Your task to perform on an android device: What's the latest news in tech? Image 0: 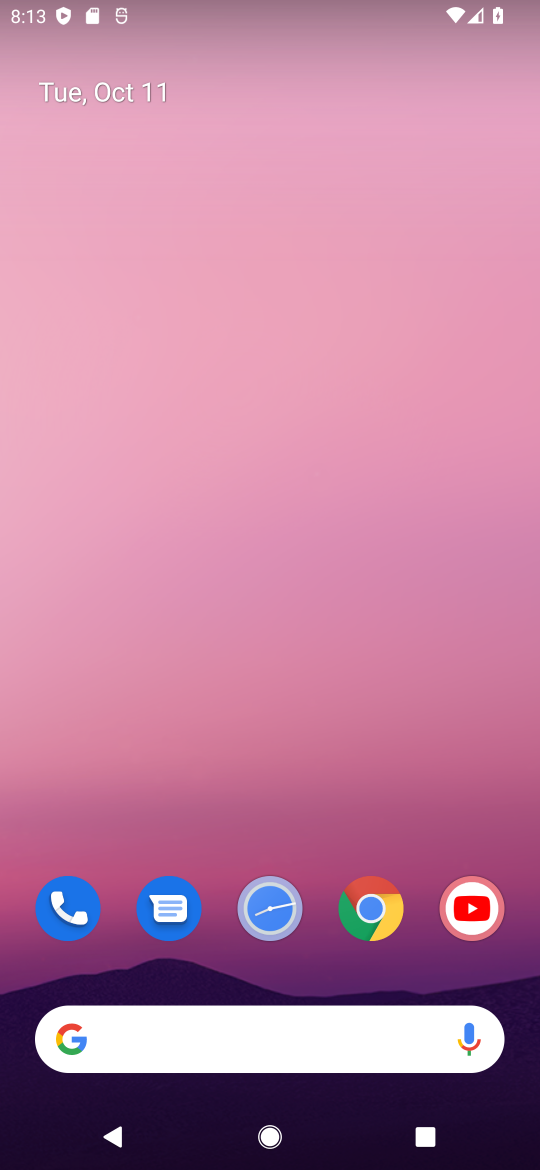
Step 0: click (268, 691)
Your task to perform on an android device: What's the latest news in tech? Image 1: 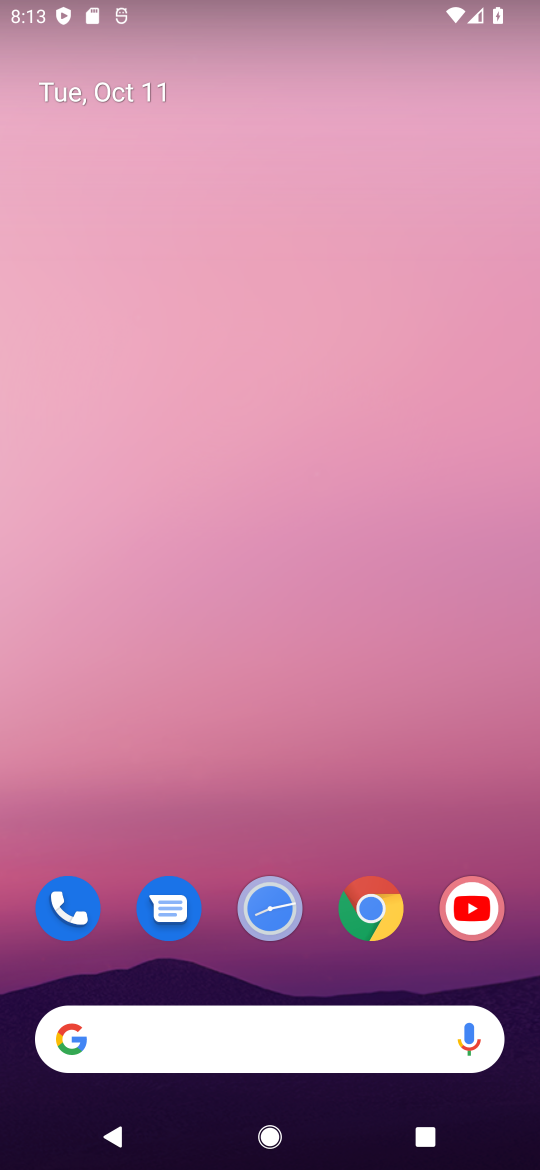
Step 1: click (197, 1030)
Your task to perform on an android device: What's the latest news in tech? Image 2: 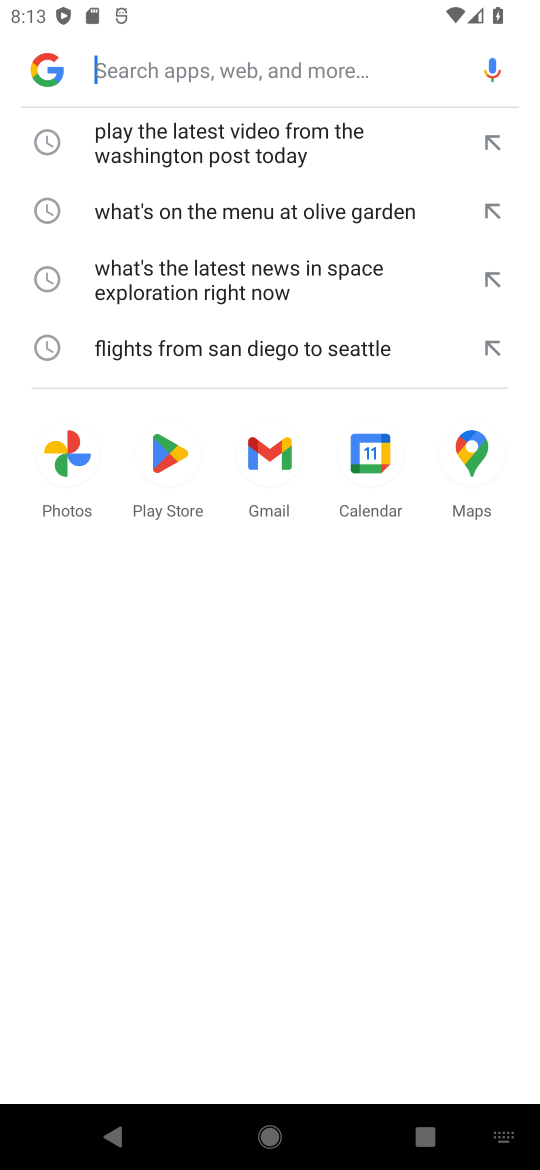
Step 2: type "What's the latest news in tech?"
Your task to perform on an android device: What's the latest news in tech? Image 3: 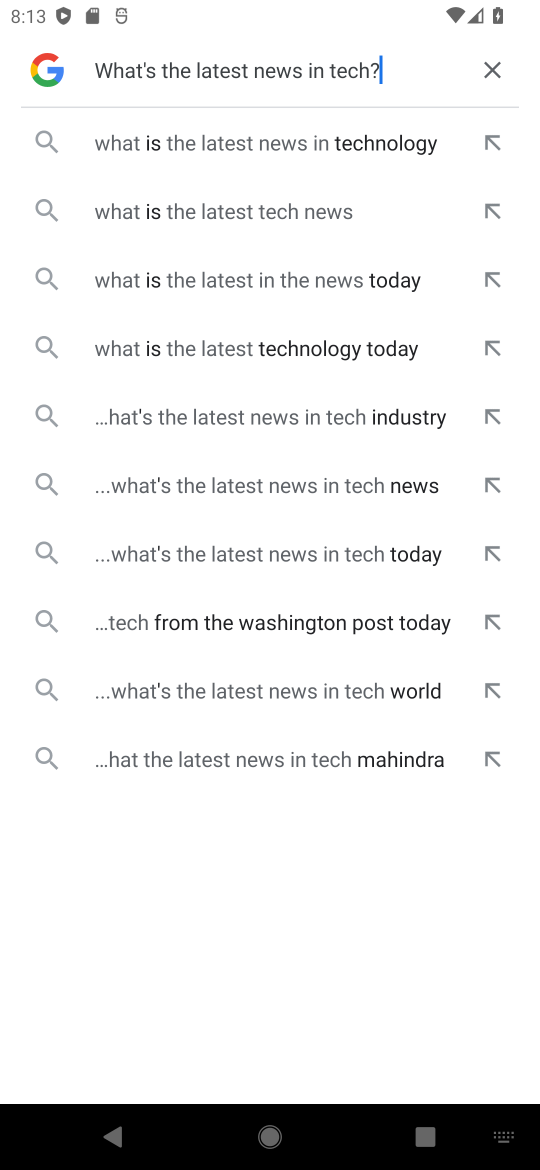
Step 3: click (271, 132)
Your task to perform on an android device: What's the latest news in tech? Image 4: 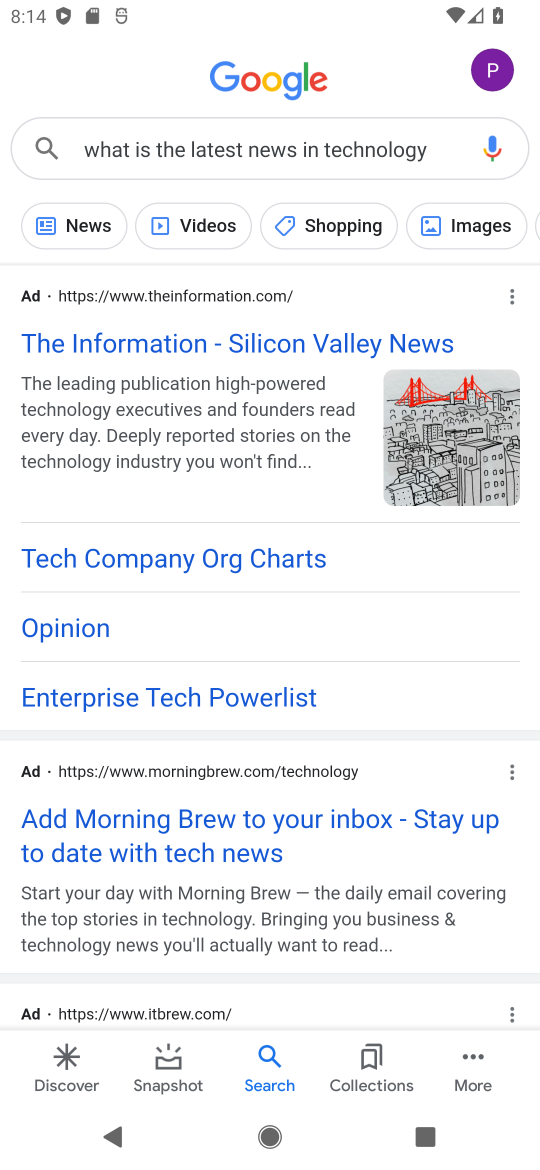
Step 4: click (153, 339)
Your task to perform on an android device: What's the latest news in tech? Image 5: 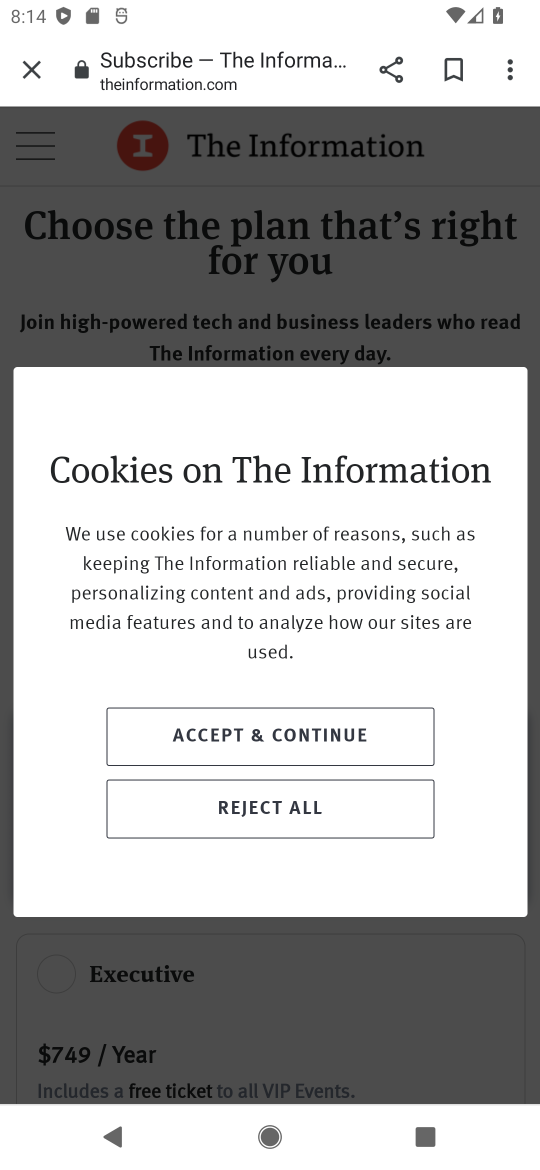
Step 5: click (307, 735)
Your task to perform on an android device: What's the latest news in tech? Image 6: 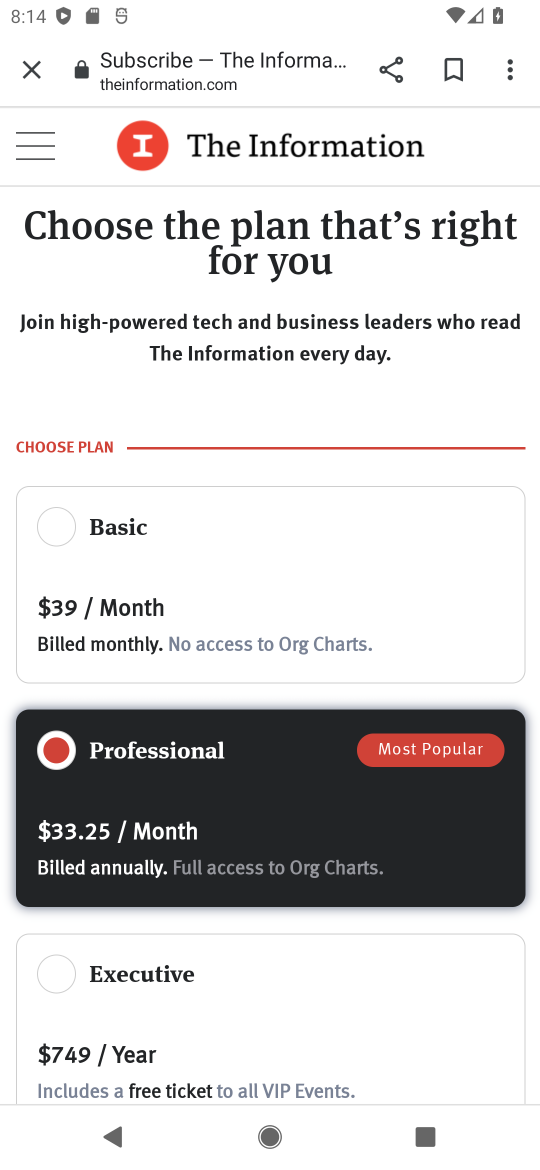
Step 6: task complete